Your task to perform on an android device: Show the shopping cart on walmart.com. Add "asus zenbook" to the cart on walmart.com Image 0: 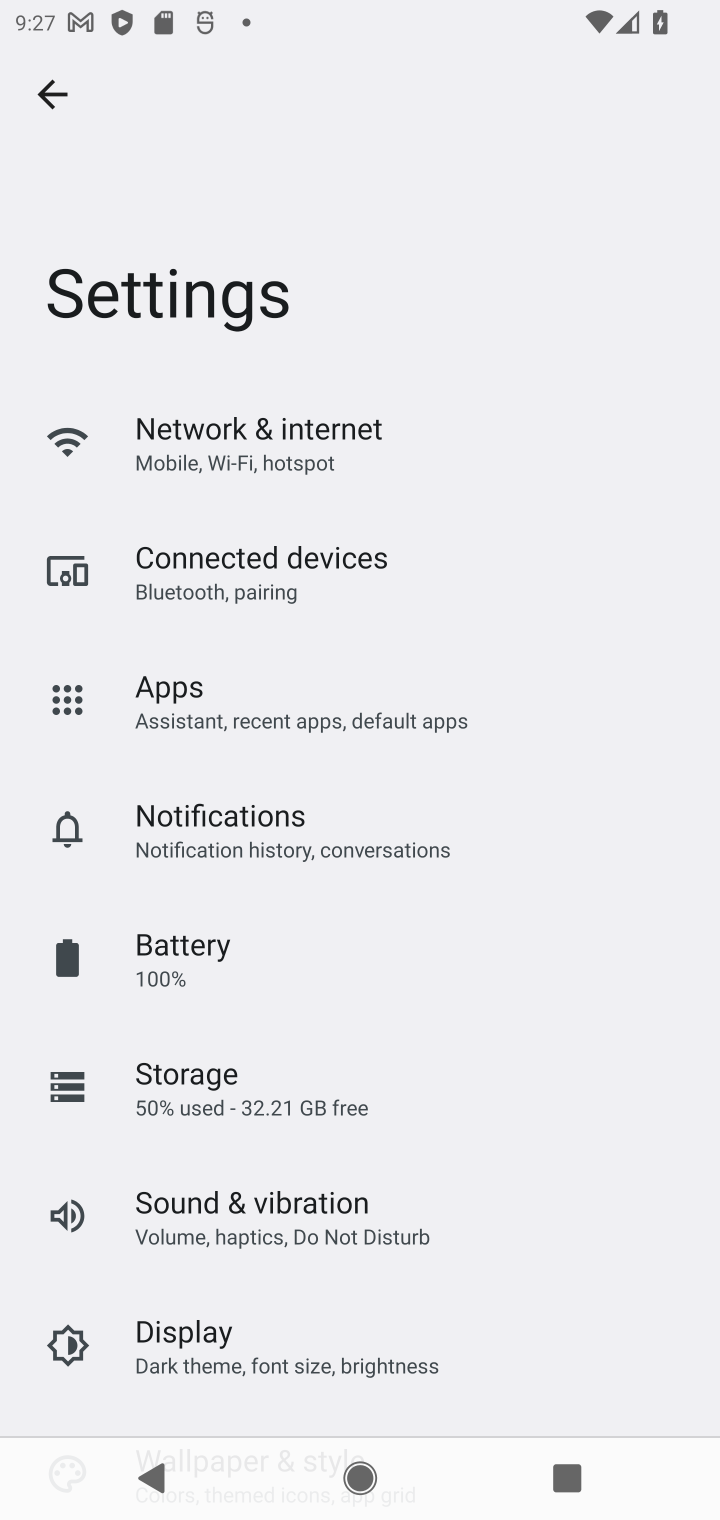
Step 0: press home button
Your task to perform on an android device: Show the shopping cart on walmart.com. Add "asus zenbook" to the cart on walmart.com Image 1: 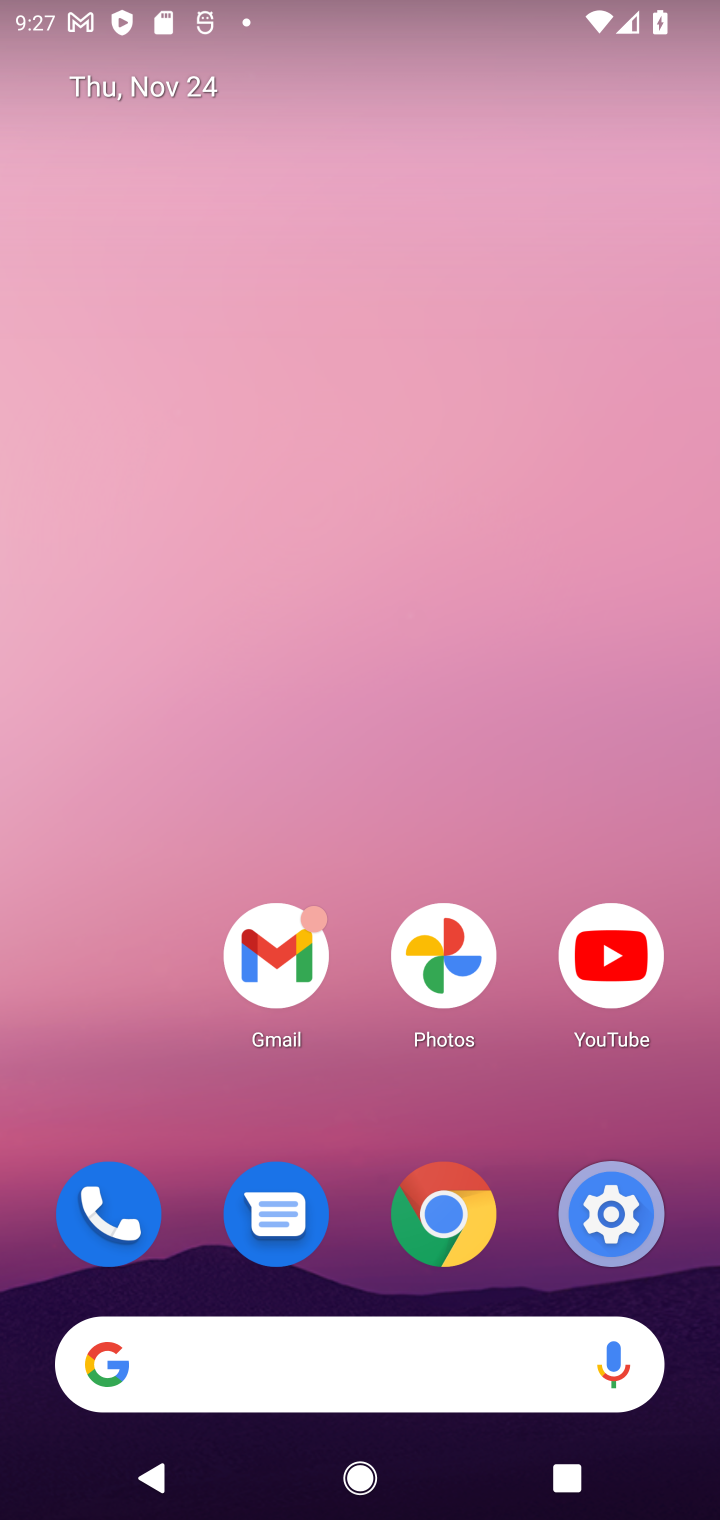
Step 1: click (353, 1367)
Your task to perform on an android device: Show the shopping cart on walmart.com. Add "asus zenbook" to the cart on walmart.com Image 2: 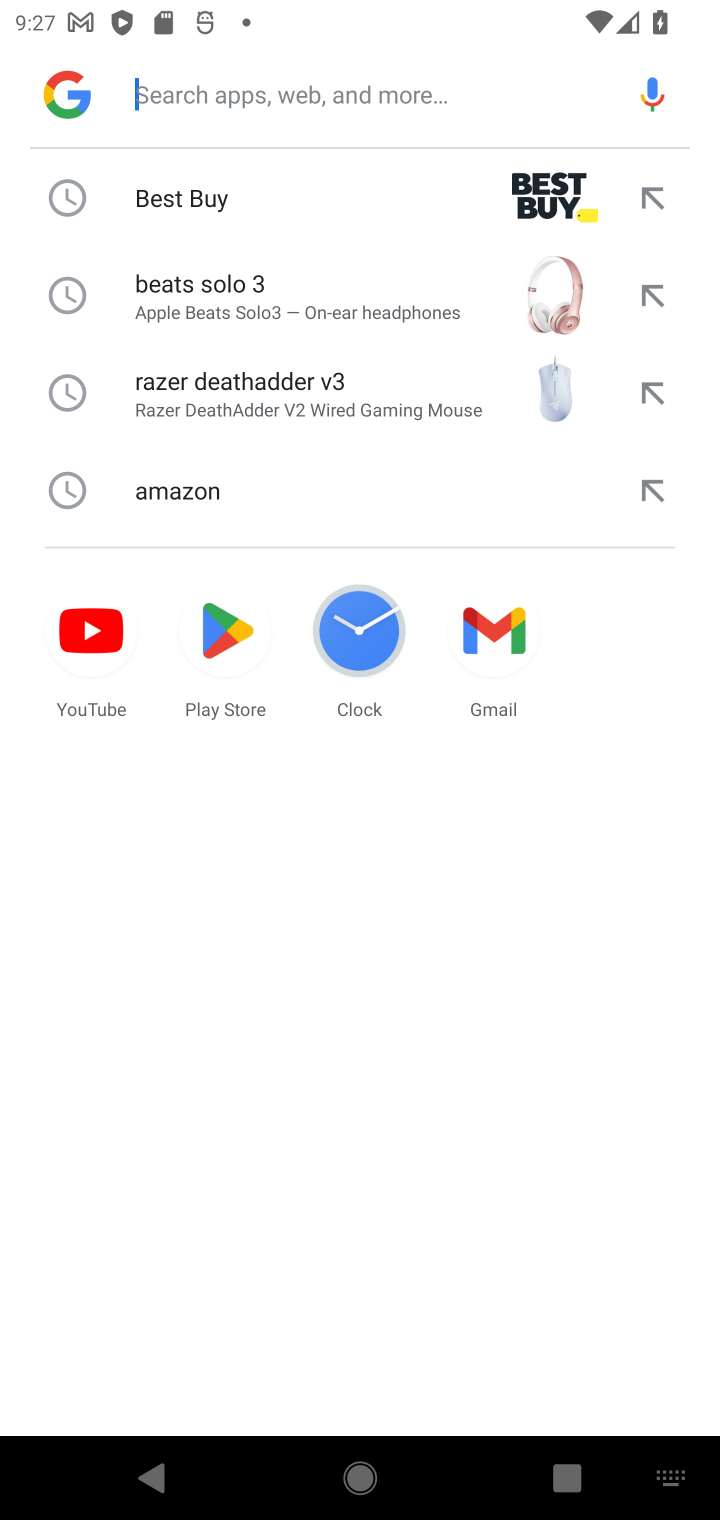
Step 2: type "walmart"
Your task to perform on an android device: Show the shopping cart on walmart.com. Add "asus zenbook" to the cart on walmart.com Image 3: 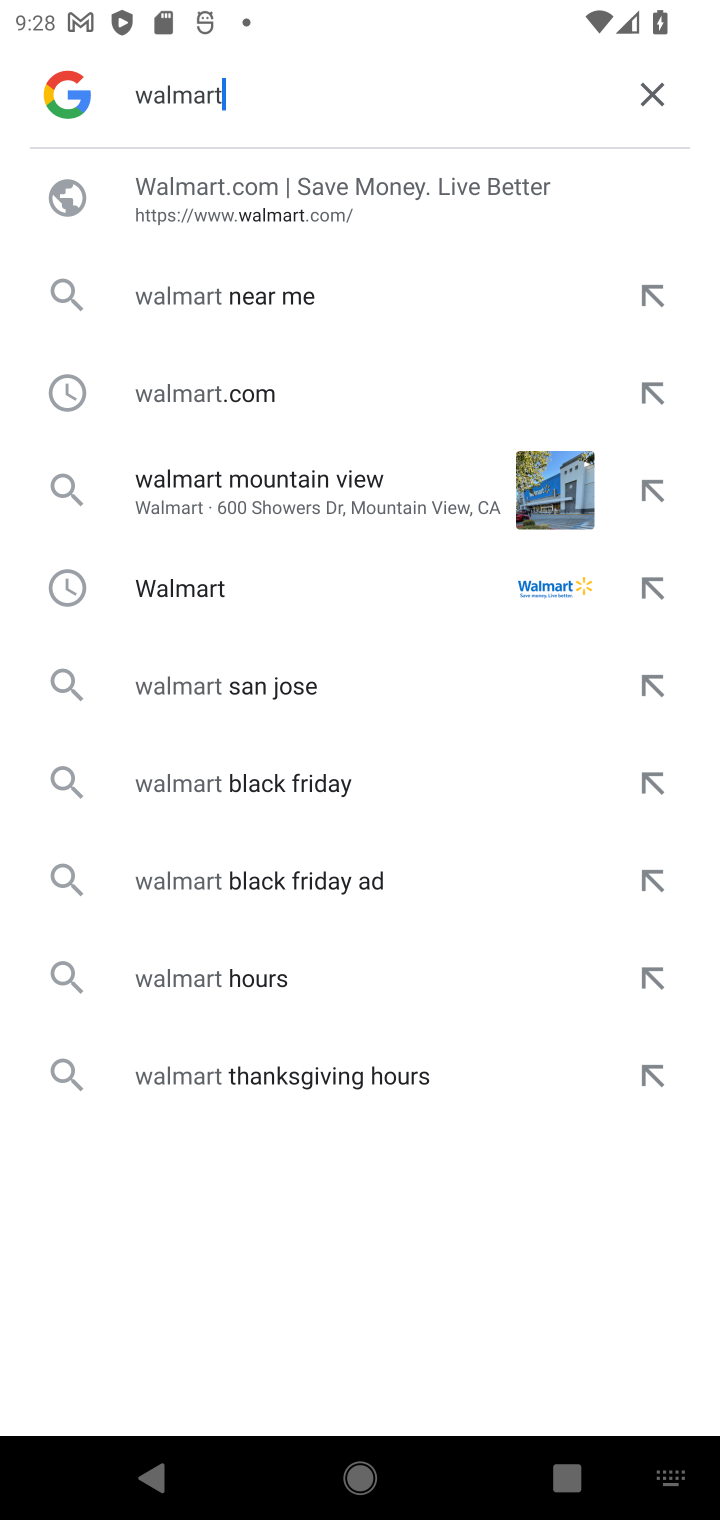
Step 3: click (257, 220)
Your task to perform on an android device: Show the shopping cart on walmart.com. Add "asus zenbook" to the cart on walmart.com Image 4: 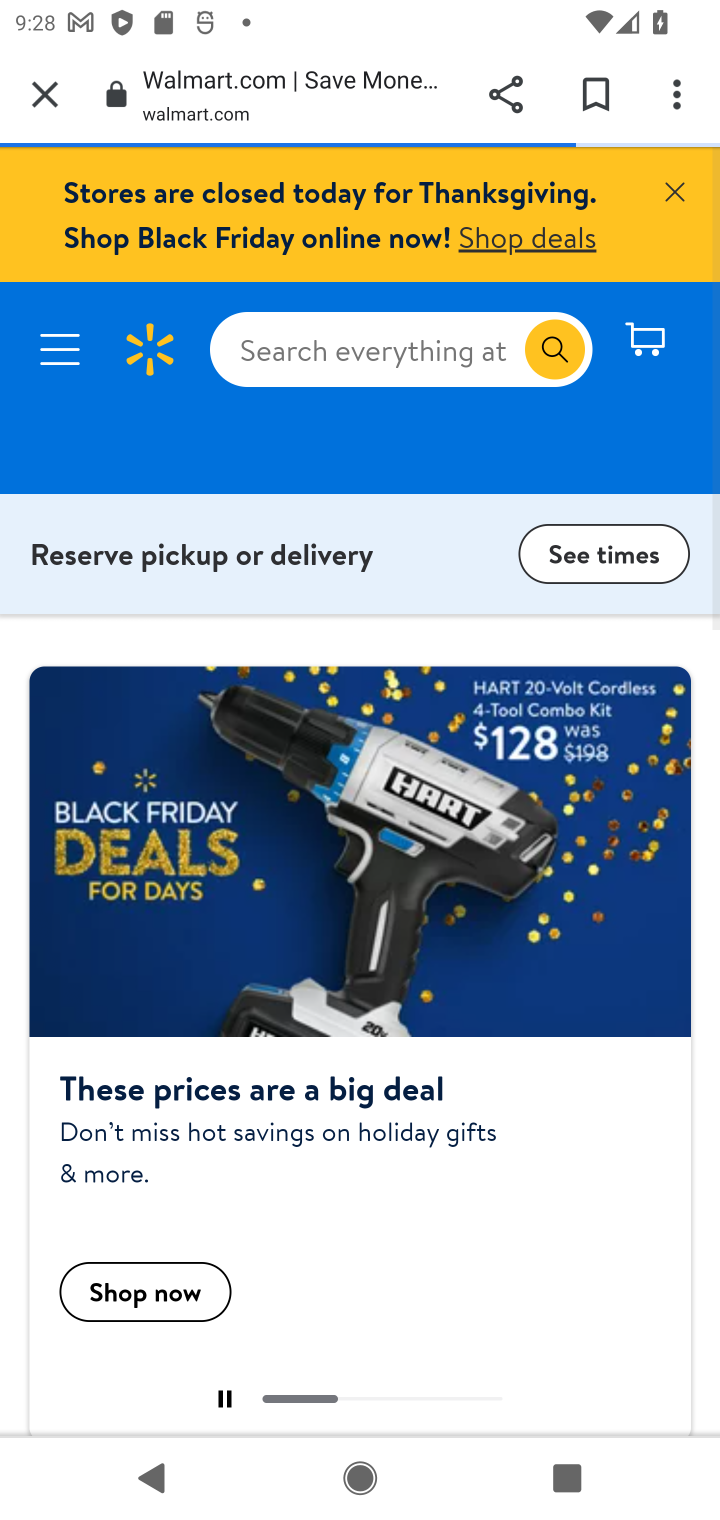
Step 4: click (355, 376)
Your task to perform on an android device: Show the shopping cart on walmart.com. Add "asus zenbook" to the cart on walmart.com Image 5: 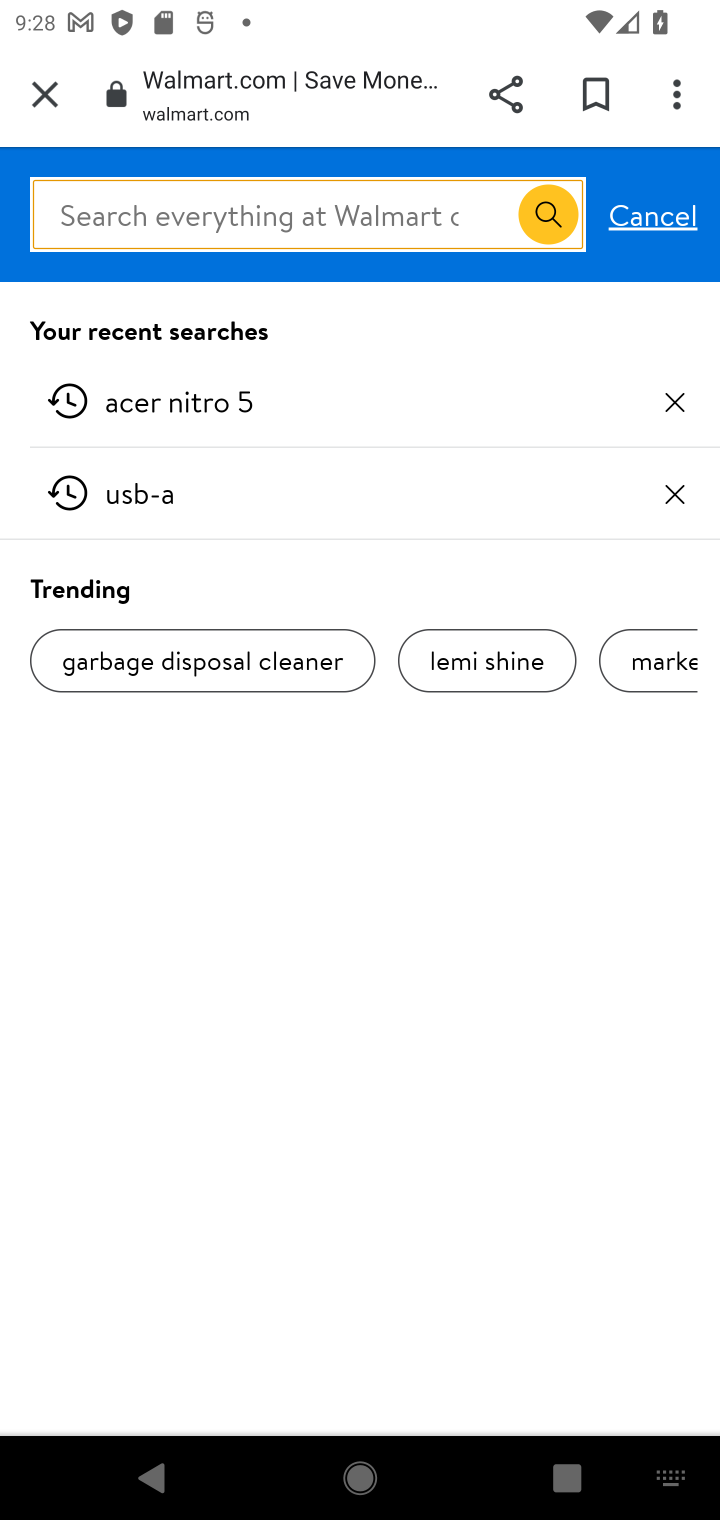
Step 5: click (442, 213)
Your task to perform on an android device: Show the shopping cart on walmart.com. Add "asus zenbook" to the cart on walmart.com Image 6: 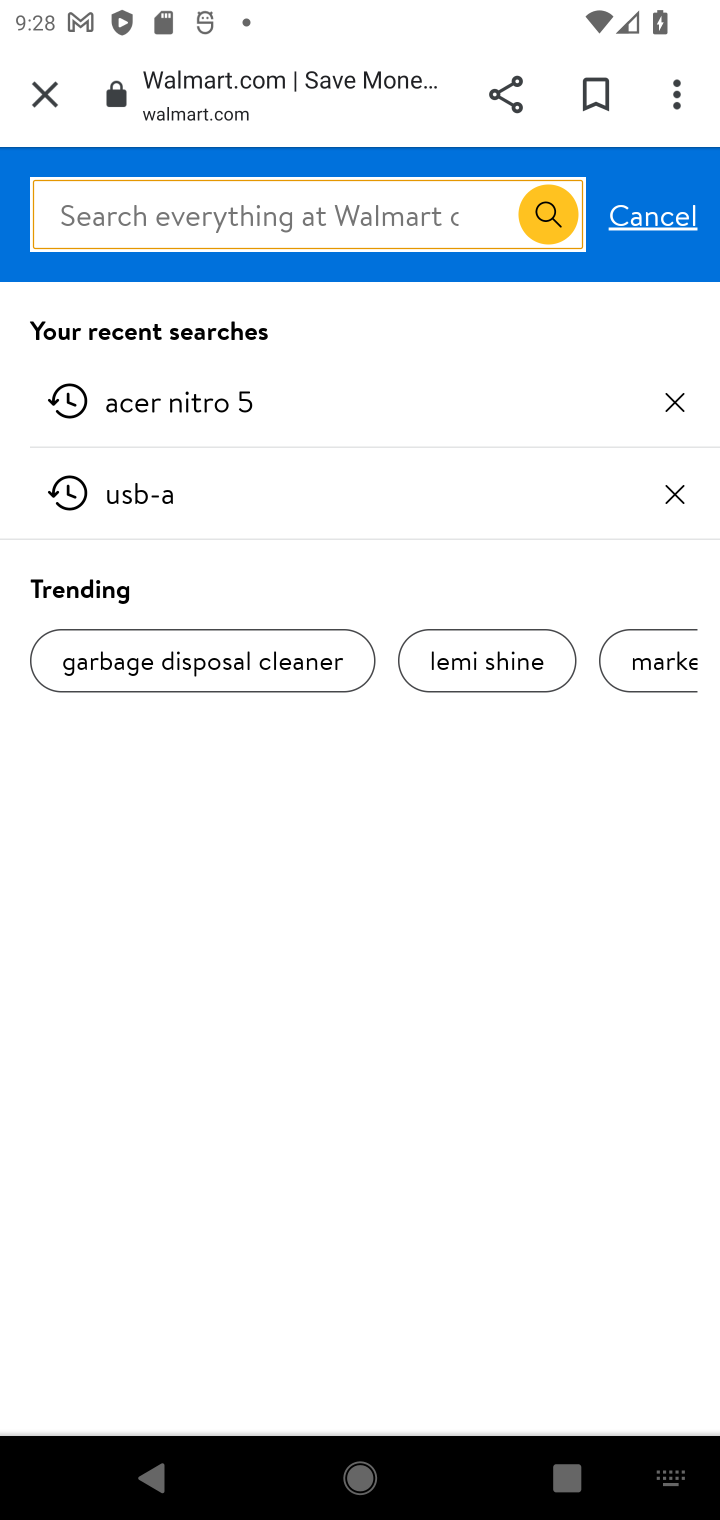
Step 6: type "asus zenbook"
Your task to perform on an android device: Show the shopping cart on walmart.com. Add "asus zenbook" to the cart on walmart.com Image 7: 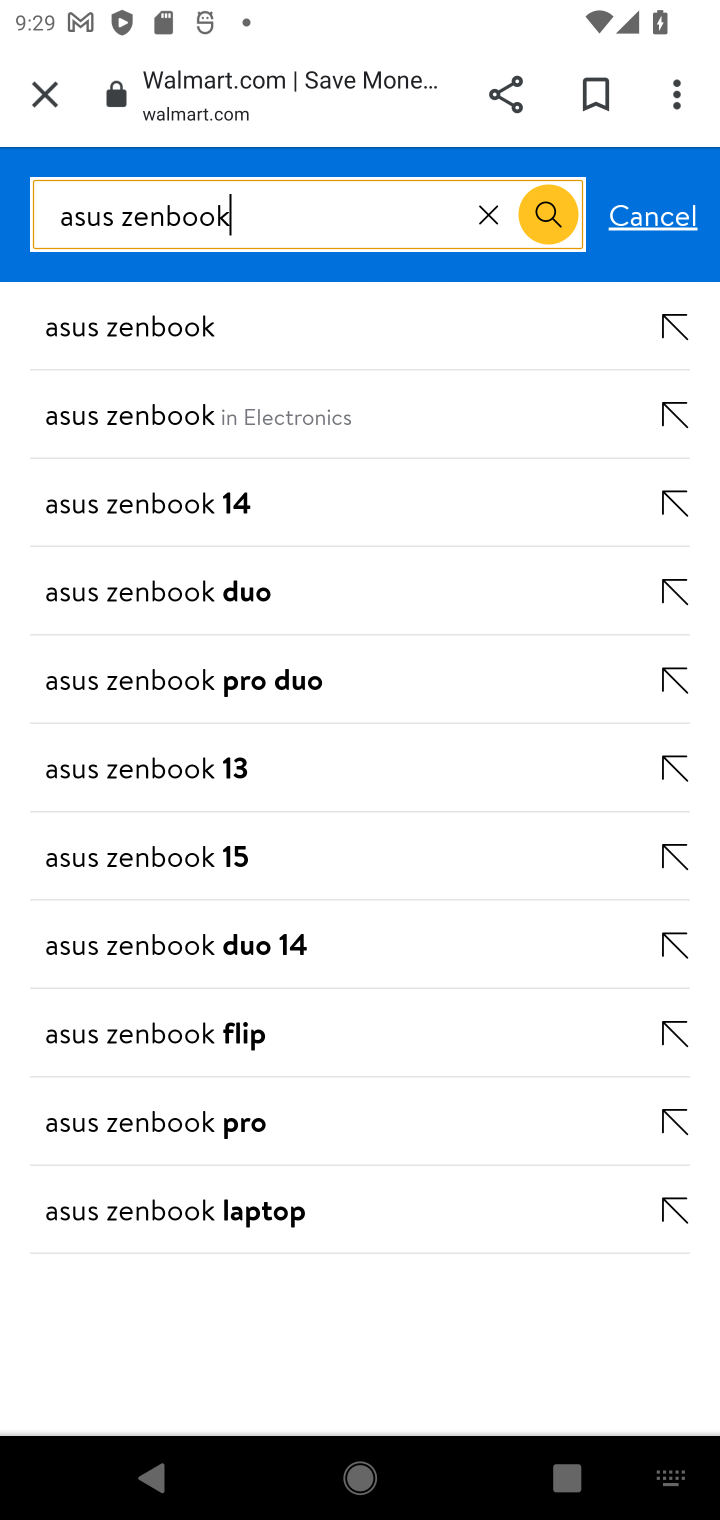
Step 7: click (206, 320)
Your task to perform on an android device: Show the shopping cart on walmart.com. Add "asus zenbook" to the cart on walmart.com Image 8: 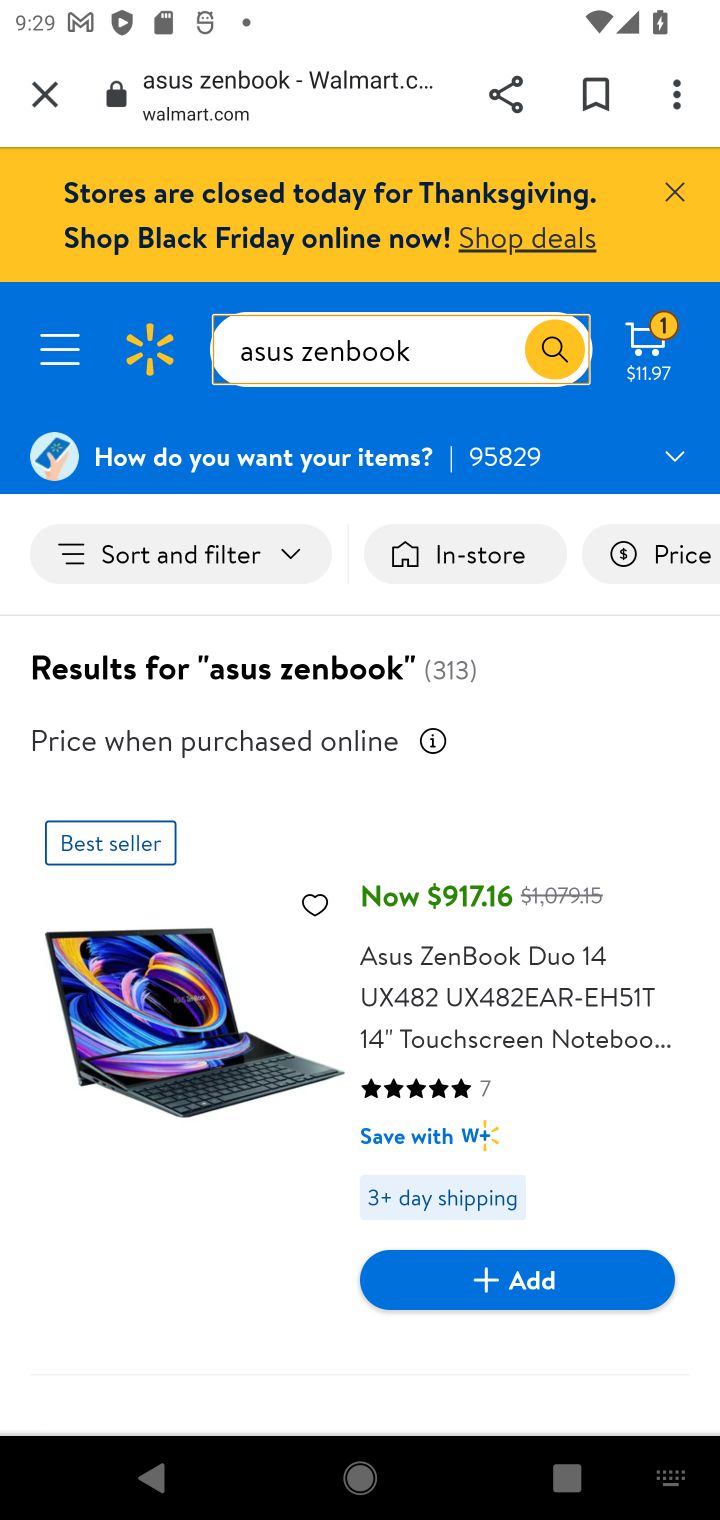
Step 8: click (462, 1294)
Your task to perform on an android device: Show the shopping cart on walmart.com. Add "asus zenbook" to the cart on walmart.com Image 9: 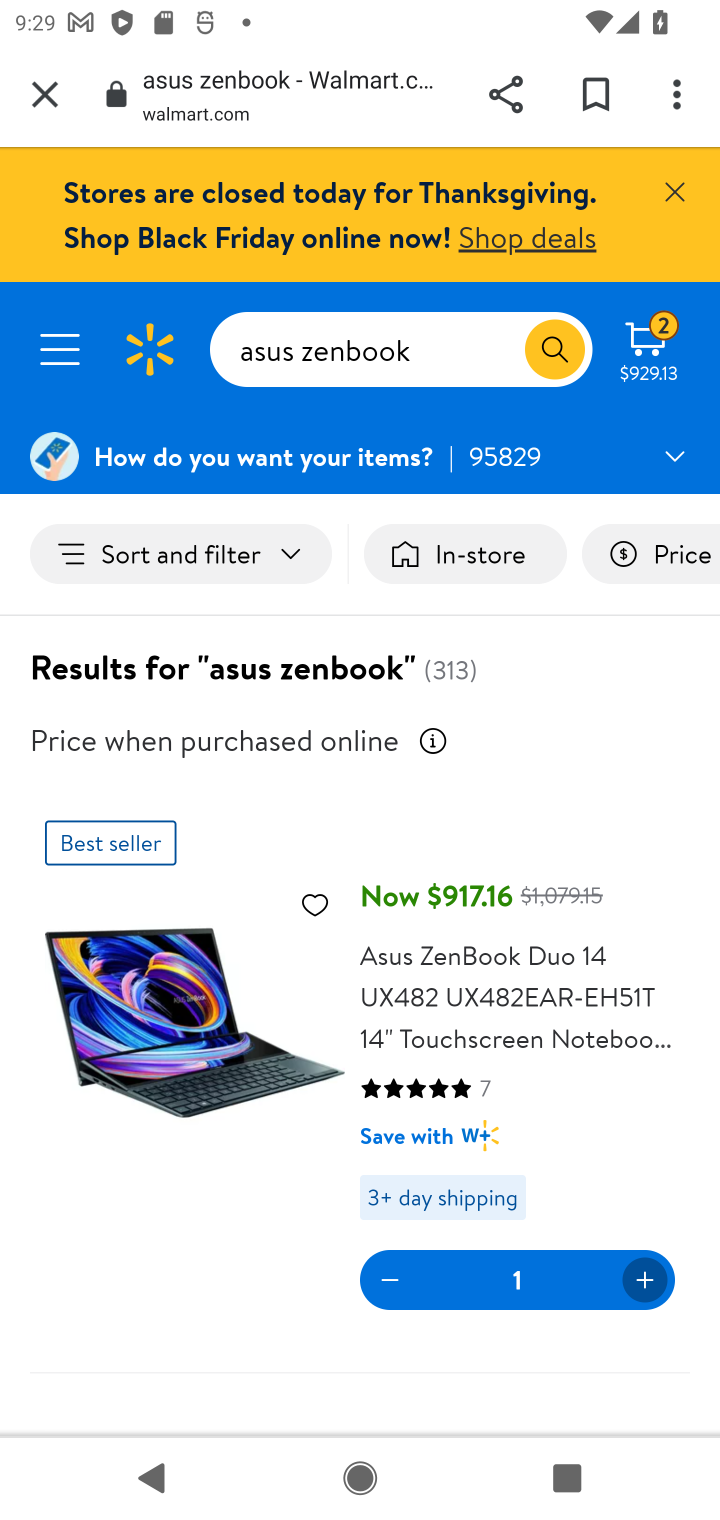
Step 9: task complete